Your task to perform on an android device: turn off wifi Image 0: 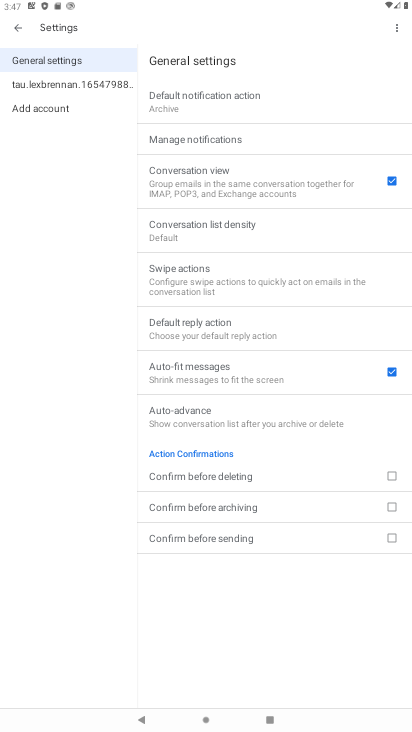
Step 0: press home button
Your task to perform on an android device: turn off wifi Image 1: 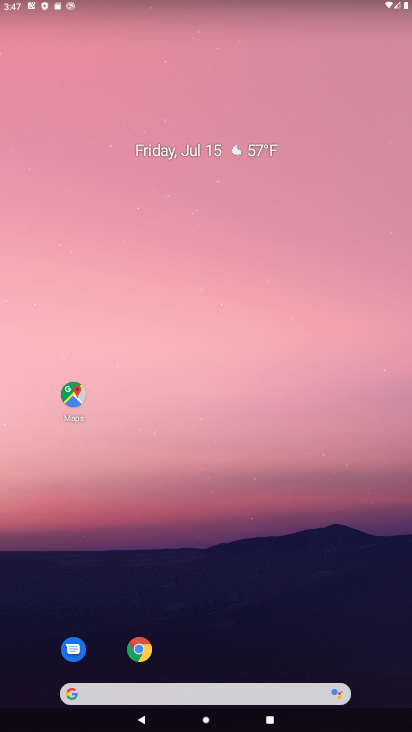
Step 1: drag from (240, 726) to (265, 271)
Your task to perform on an android device: turn off wifi Image 2: 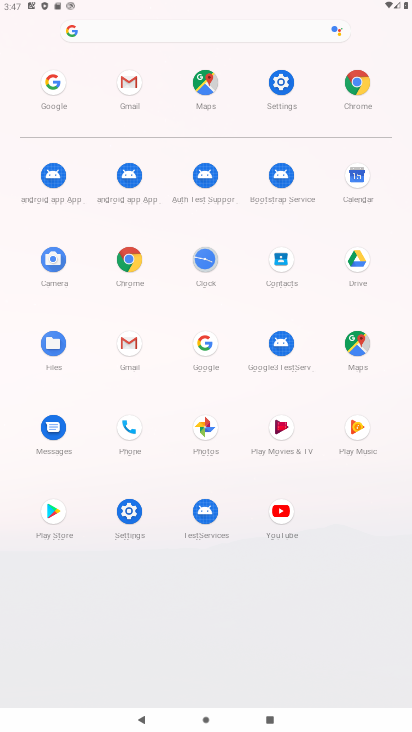
Step 2: click (288, 79)
Your task to perform on an android device: turn off wifi Image 3: 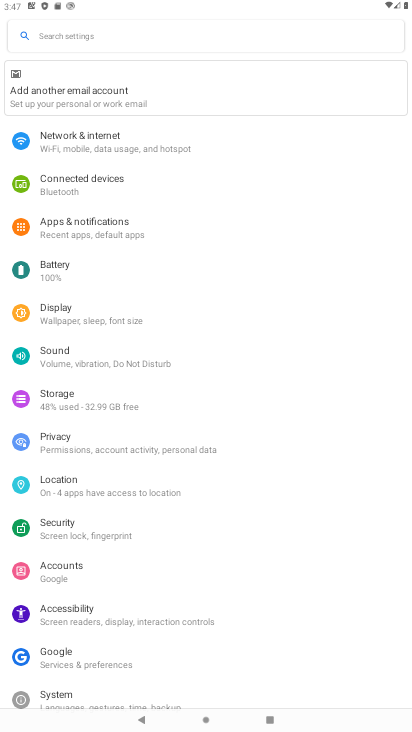
Step 3: click (71, 136)
Your task to perform on an android device: turn off wifi Image 4: 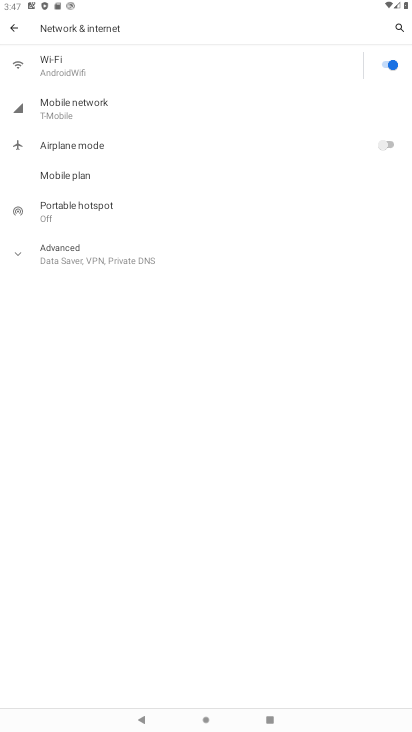
Step 4: click (386, 60)
Your task to perform on an android device: turn off wifi Image 5: 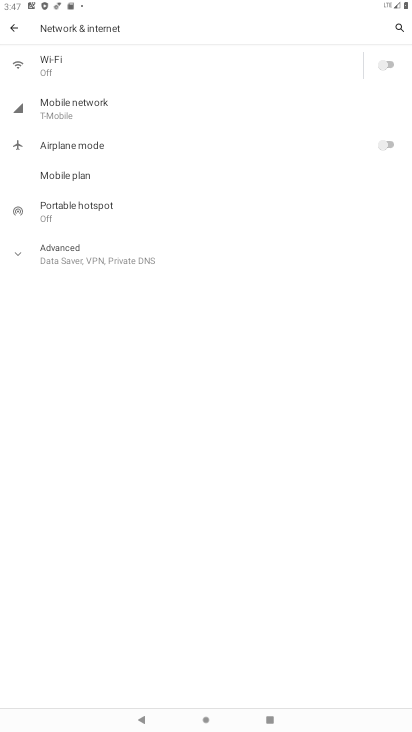
Step 5: task complete